Your task to perform on an android device: turn on improve location accuracy Image 0: 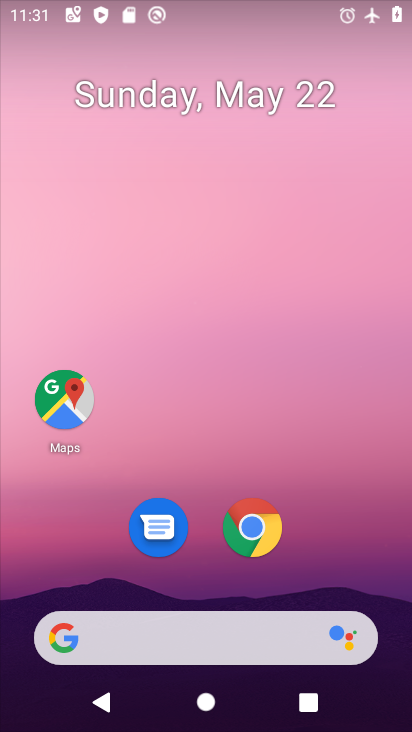
Step 0: drag from (357, 580) to (397, 38)
Your task to perform on an android device: turn on improve location accuracy Image 1: 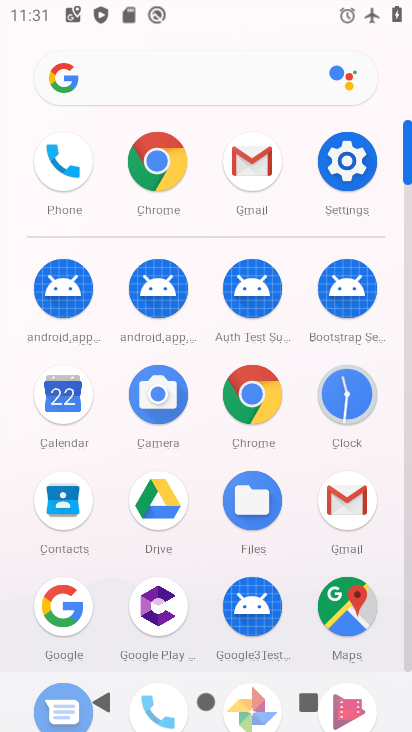
Step 1: click (344, 126)
Your task to perform on an android device: turn on improve location accuracy Image 2: 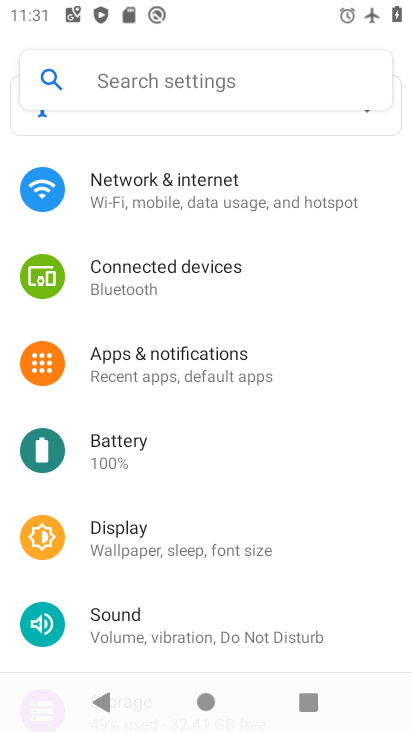
Step 2: click (239, 189)
Your task to perform on an android device: turn on improve location accuracy Image 3: 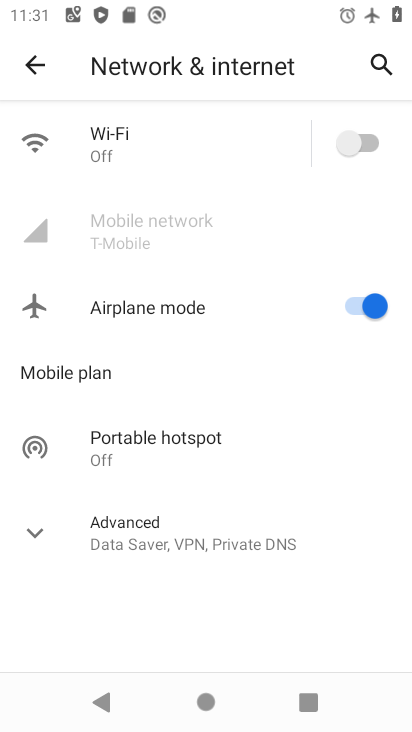
Step 3: click (362, 129)
Your task to perform on an android device: turn on improve location accuracy Image 4: 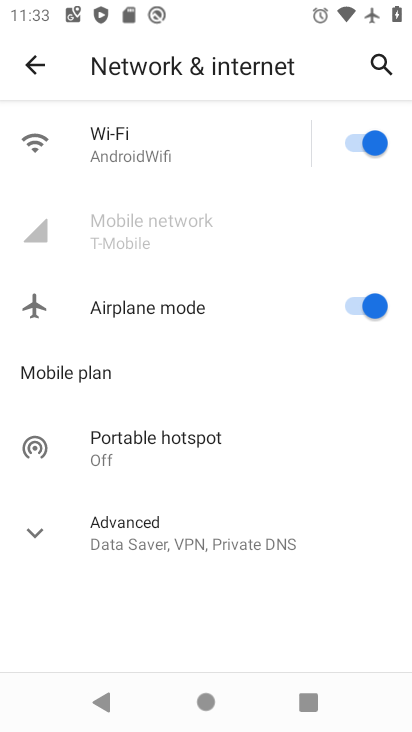
Step 4: click (37, 70)
Your task to perform on an android device: turn on improve location accuracy Image 5: 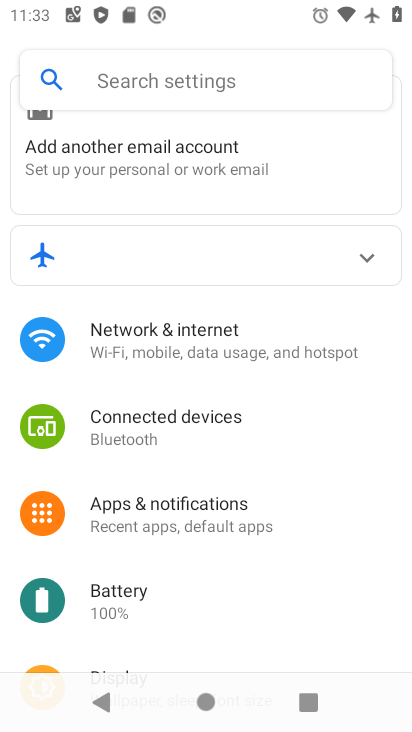
Step 5: drag from (197, 602) to (282, 168)
Your task to perform on an android device: turn on improve location accuracy Image 6: 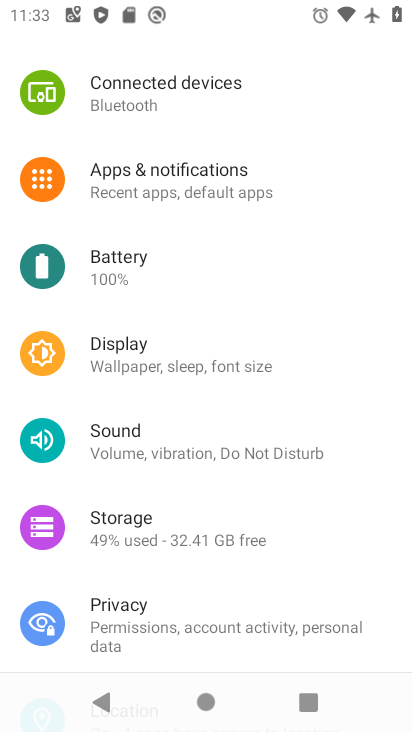
Step 6: drag from (90, 506) to (120, 234)
Your task to perform on an android device: turn on improve location accuracy Image 7: 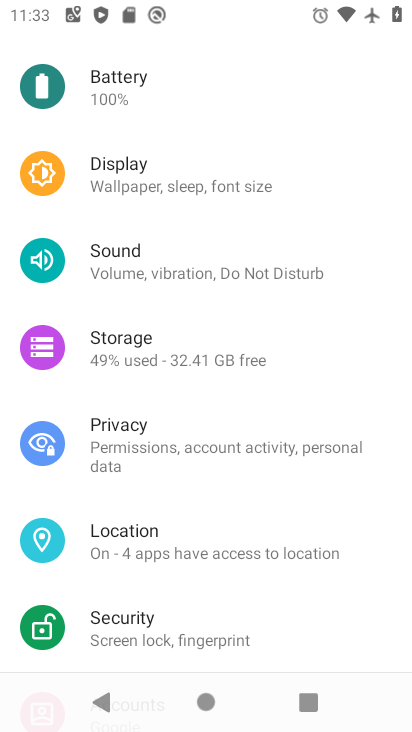
Step 7: click (296, 537)
Your task to perform on an android device: turn on improve location accuracy Image 8: 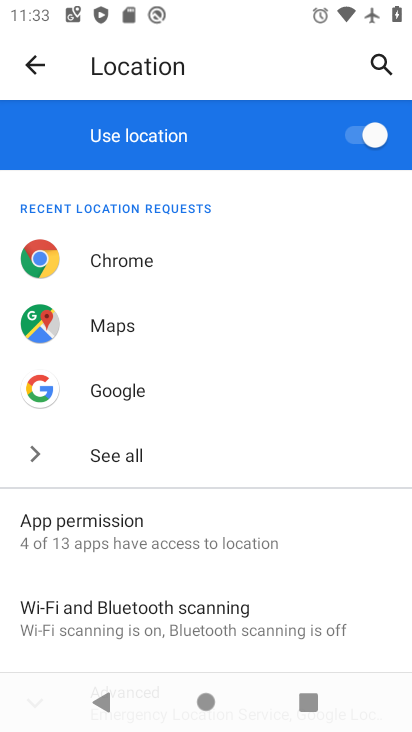
Step 8: task complete